Your task to perform on an android device: change timer sound Image 0: 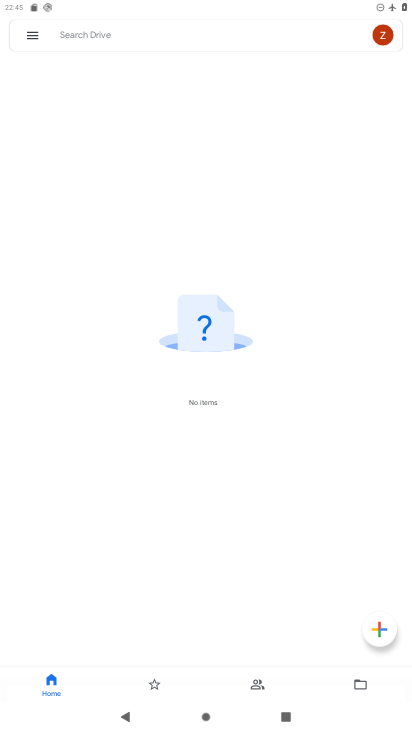
Step 0: press home button
Your task to perform on an android device: change timer sound Image 1: 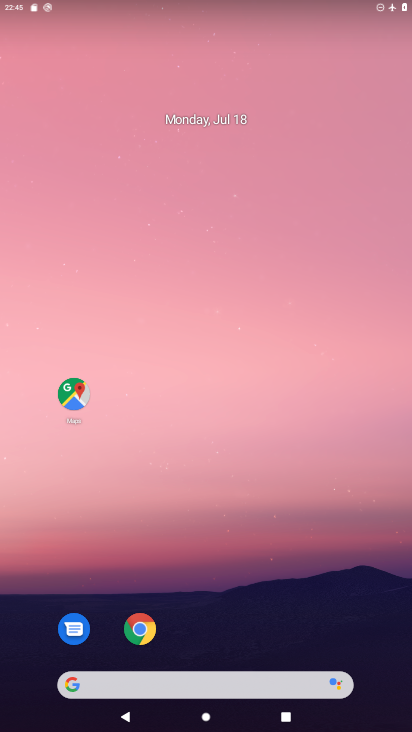
Step 1: drag from (282, 556) to (291, 50)
Your task to perform on an android device: change timer sound Image 2: 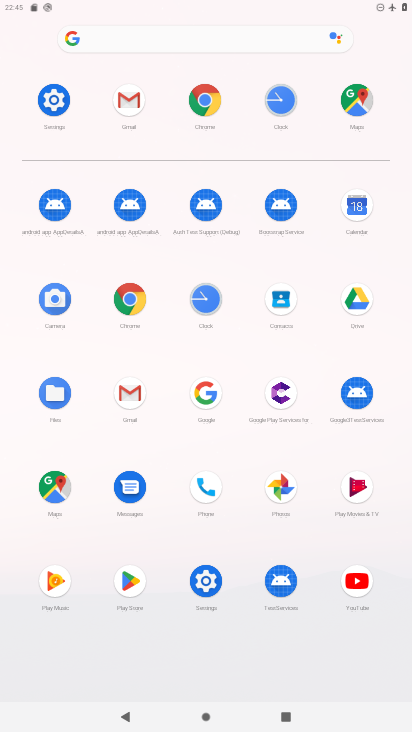
Step 2: click (200, 294)
Your task to perform on an android device: change timer sound Image 3: 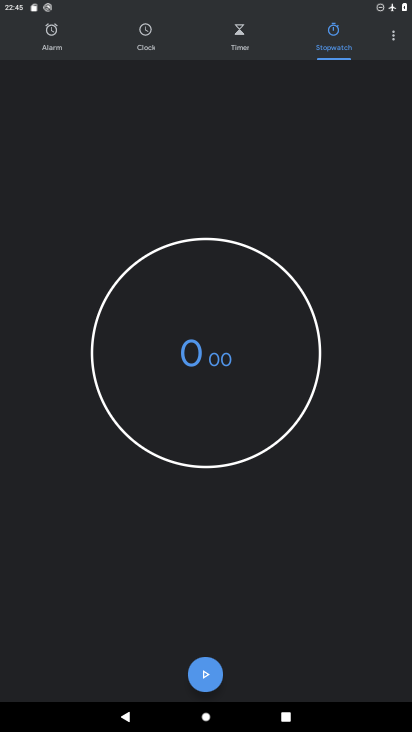
Step 3: click (395, 34)
Your task to perform on an android device: change timer sound Image 4: 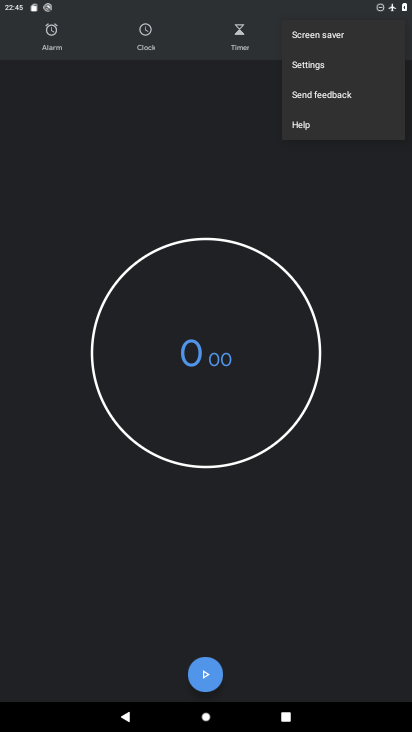
Step 4: click (320, 78)
Your task to perform on an android device: change timer sound Image 5: 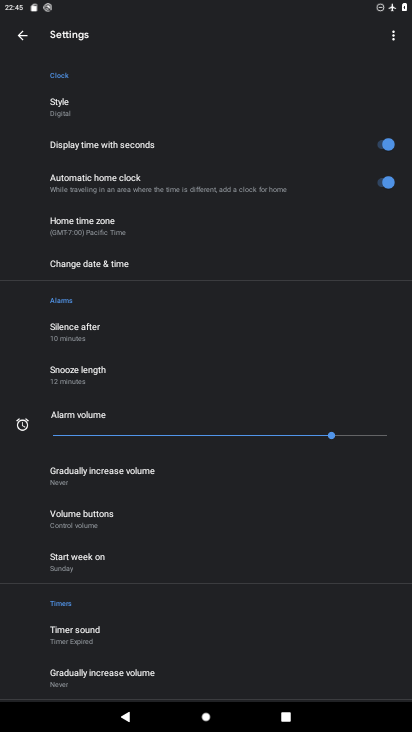
Step 5: click (87, 636)
Your task to perform on an android device: change timer sound Image 6: 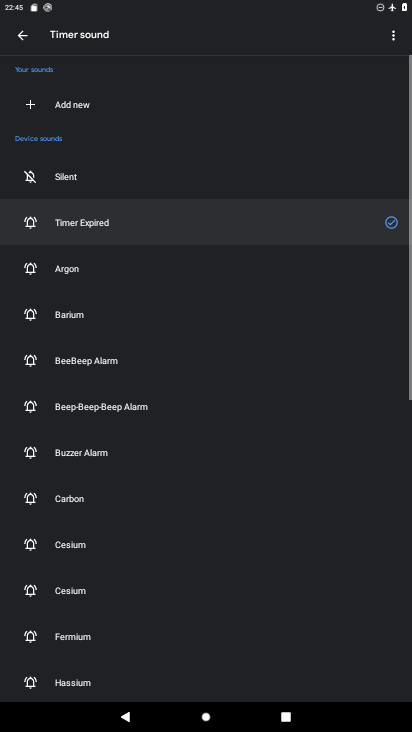
Step 6: click (115, 272)
Your task to perform on an android device: change timer sound Image 7: 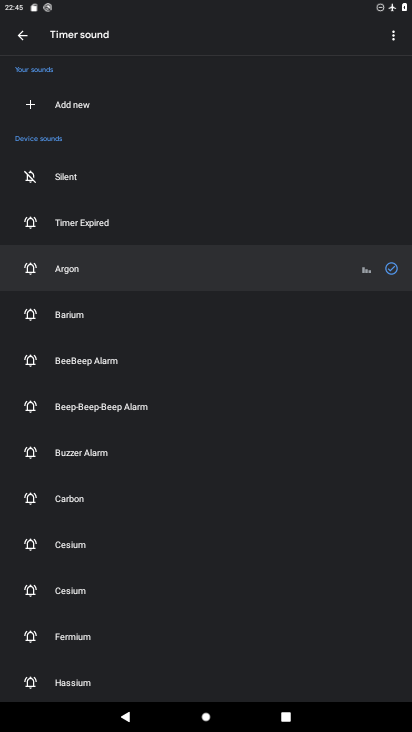
Step 7: task complete